Your task to perform on an android device: change the clock display to digital Image 0: 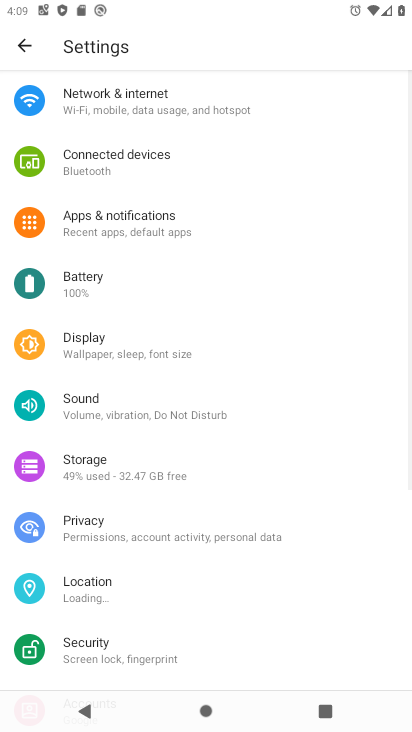
Step 0: press home button
Your task to perform on an android device: change the clock display to digital Image 1: 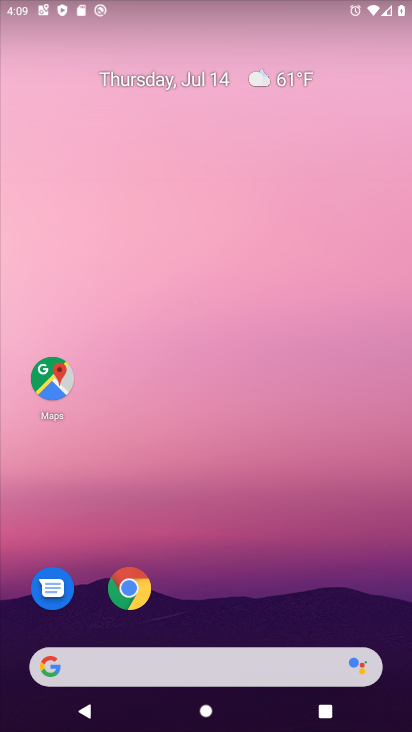
Step 1: drag from (286, 622) to (322, 9)
Your task to perform on an android device: change the clock display to digital Image 2: 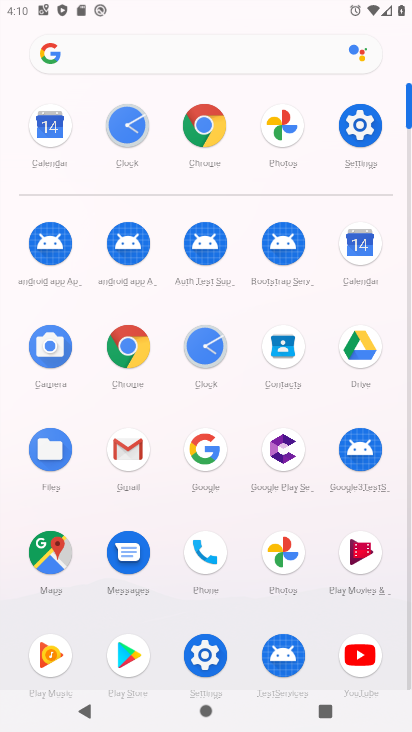
Step 2: click (203, 346)
Your task to perform on an android device: change the clock display to digital Image 3: 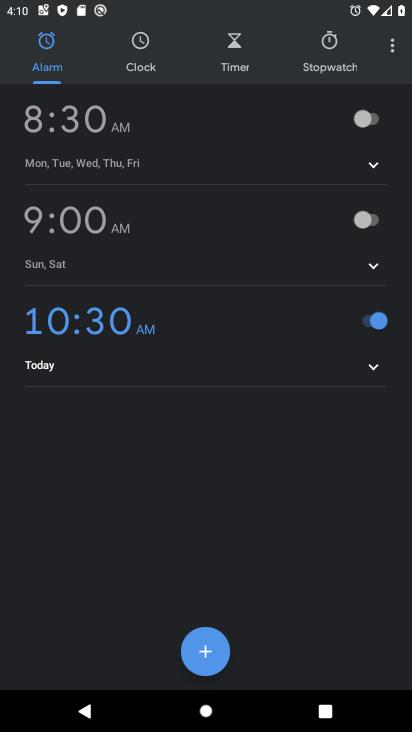
Step 3: click (387, 41)
Your task to perform on an android device: change the clock display to digital Image 4: 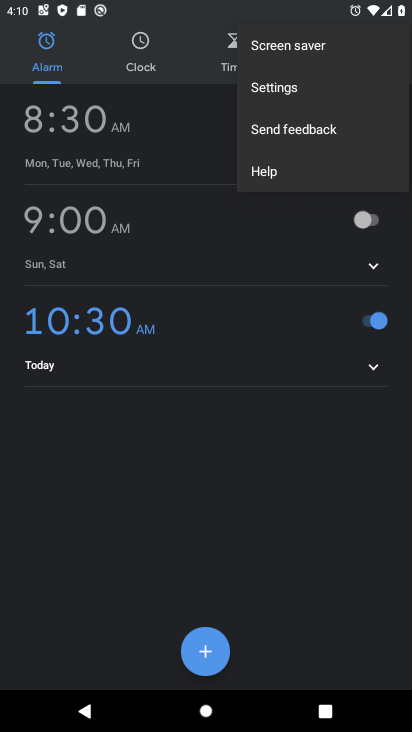
Step 4: click (282, 79)
Your task to perform on an android device: change the clock display to digital Image 5: 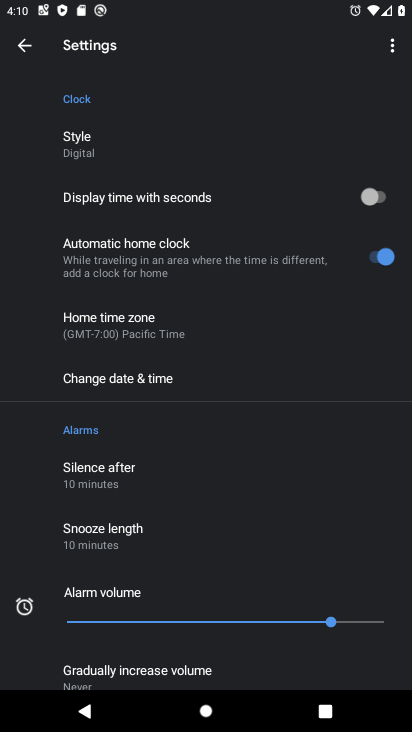
Step 5: task complete